Your task to perform on an android device: Search for razer blade on target, select the first entry, and add it to the cart. Image 0: 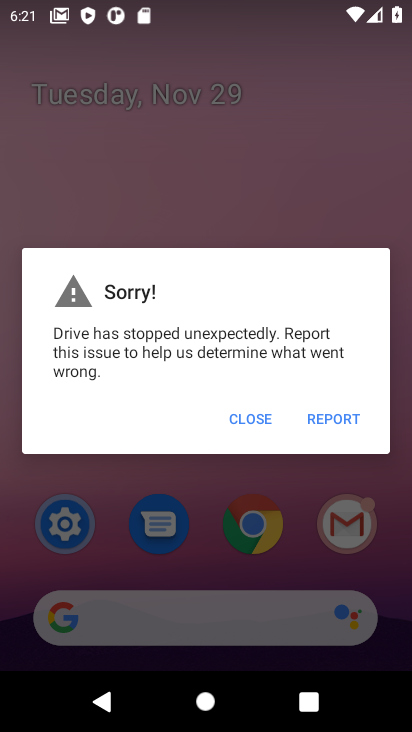
Step 0: press home button
Your task to perform on an android device: Search for razer blade on target, select the first entry, and add it to the cart. Image 1: 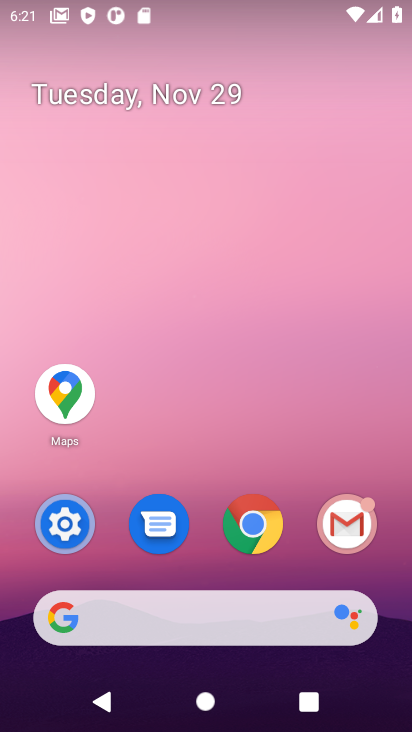
Step 1: click (245, 534)
Your task to perform on an android device: Search for razer blade on target, select the first entry, and add it to the cart. Image 2: 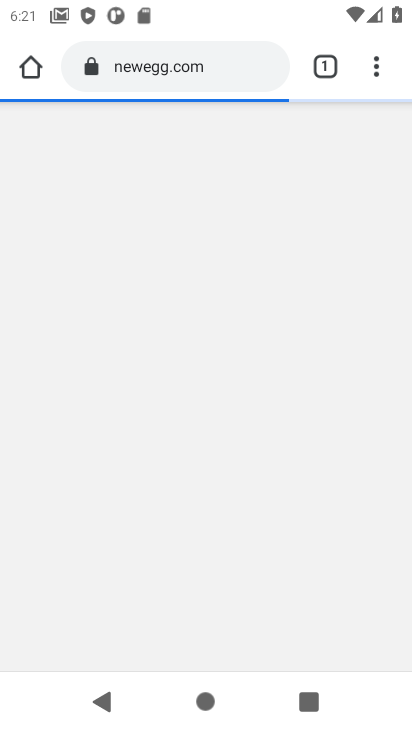
Step 2: click (158, 68)
Your task to perform on an android device: Search for razer blade on target, select the first entry, and add it to the cart. Image 3: 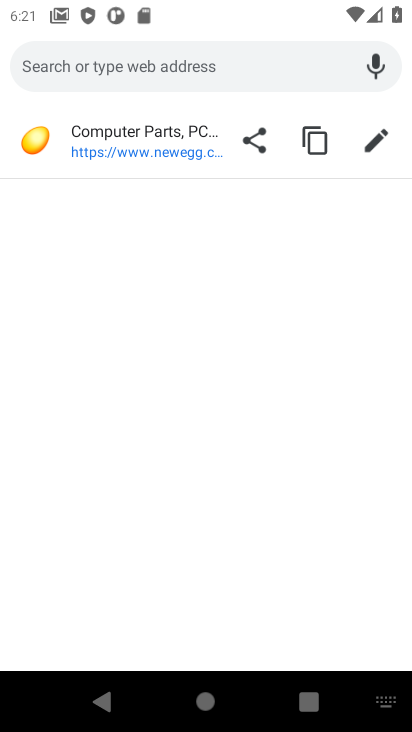
Step 3: type "target.com"
Your task to perform on an android device: Search for razer blade on target, select the first entry, and add it to the cart. Image 4: 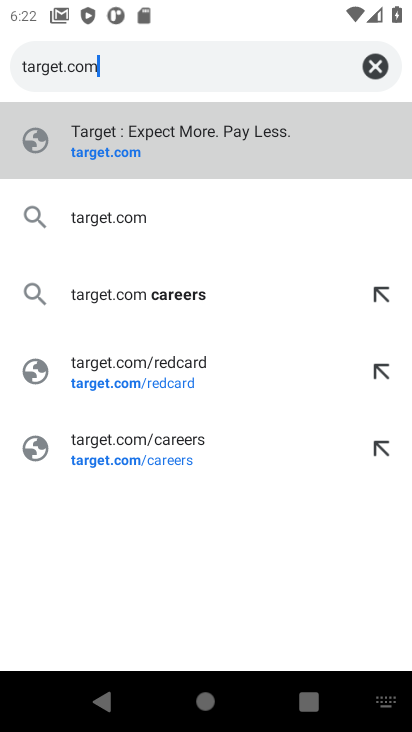
Step 4: click (121, 150)
Your task to perform on an android device: Search for razer blade on target, select the first entry, and add it to the cart. Image 5: 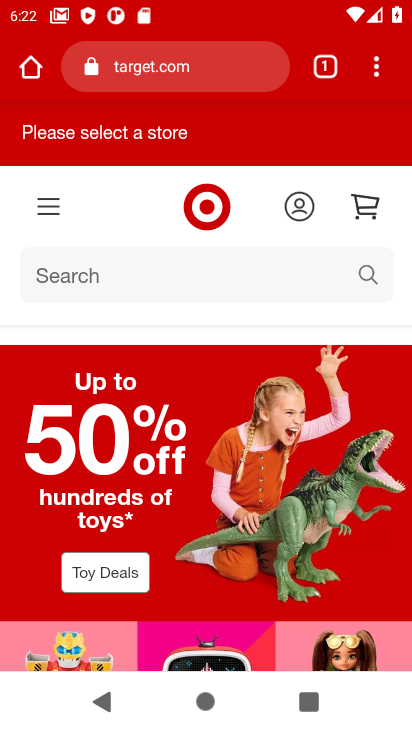
Step 5: click (90, 278)
Your task to perform on an android device: Search for razer blade on target, select the first entry, and add it to the cart. Image 6: 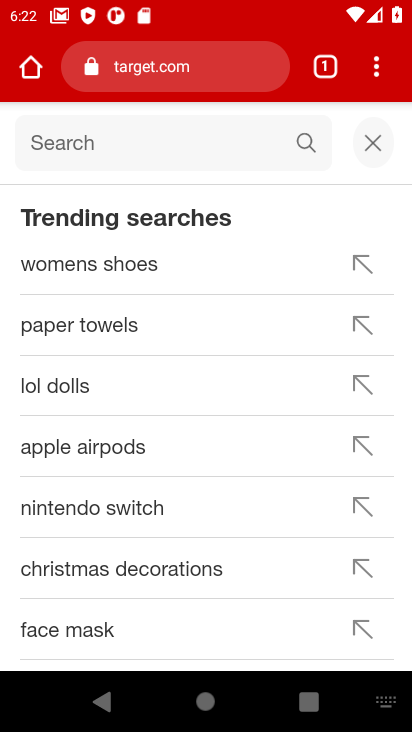
Step 6: type "razer blade "
Your task to perform on an android device: Search for razer blade on target, select the first entry, and add it to the cart. Image 7: 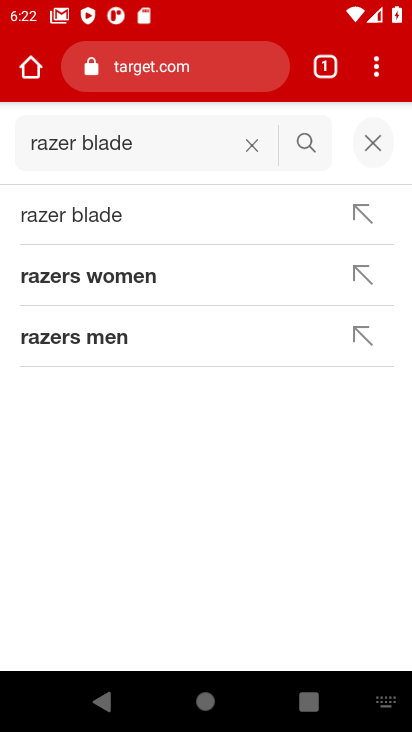
Step 7: click (87, 217)
Your task to perform on an android device: Search for razer blade on target, select the first entry, and add it to the cart. Image 8: 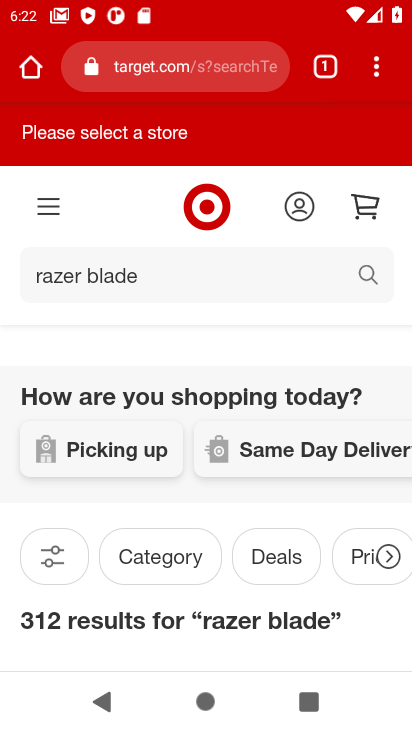
Step 8: task complete